Your task to perform on an android device: Go to Maps Image 0: 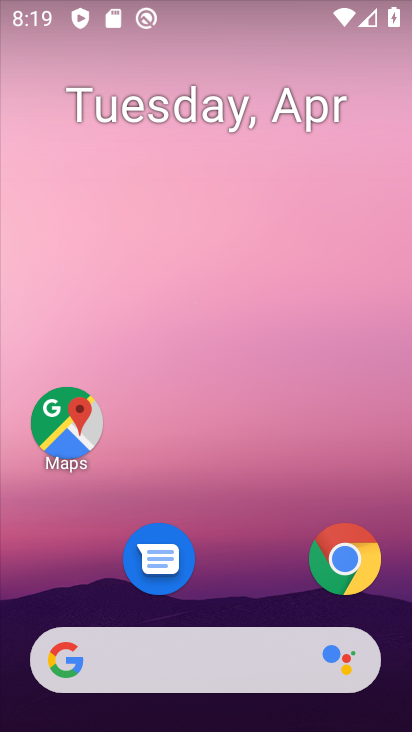
Step 0: click (59, 414)
Your task to perform on an android device: Go to Maps Image 1: 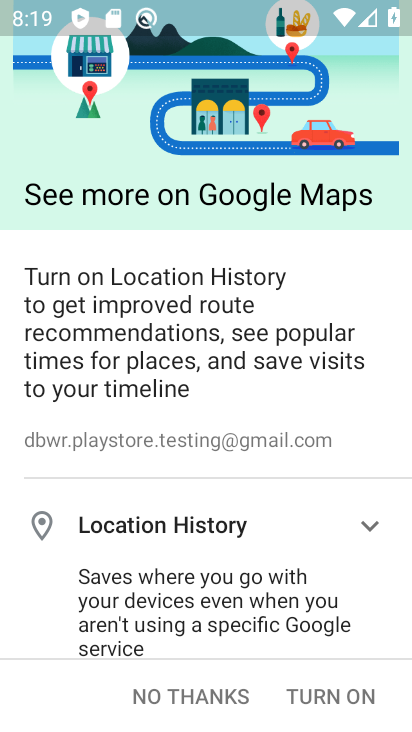
Step 1: click (199, 695)
Your task to perform on an android device: Go to Maps Image 2: 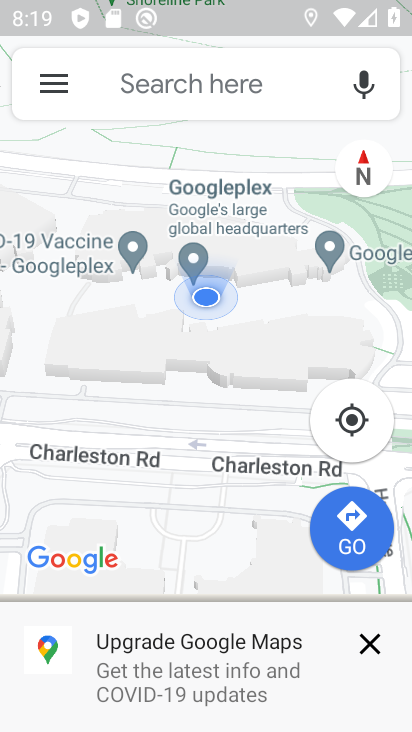
Step 2: click (368, 645)
Your task to perform on an android device: Go to Maps Image 3: 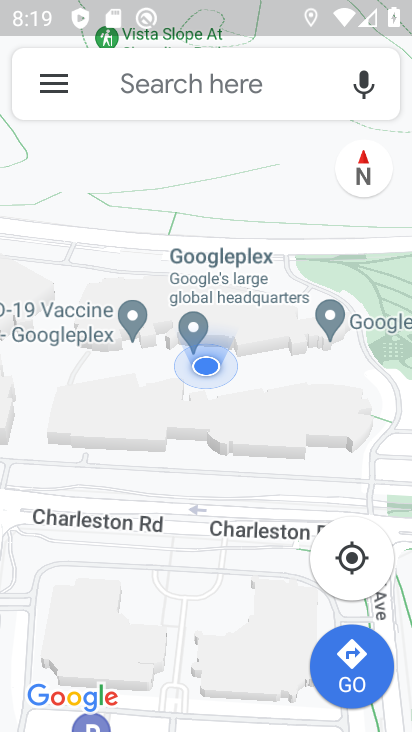
Step 3: task complete